Your task to perform on an android device: Open Amazon Image 0: 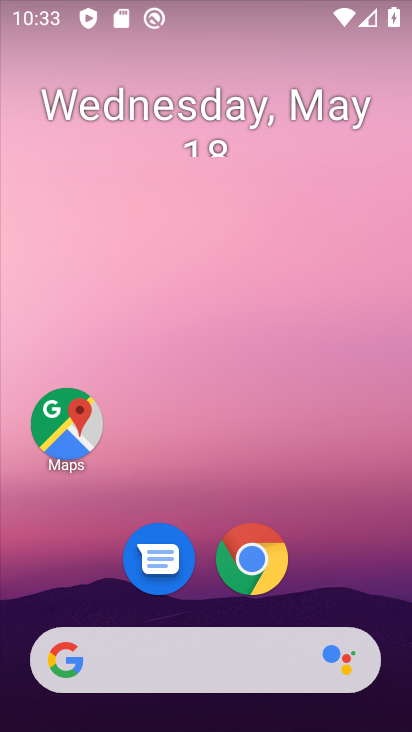
Step 0: click (235, 551)
Your task to perform on an android device: Open Amazon Image 1: 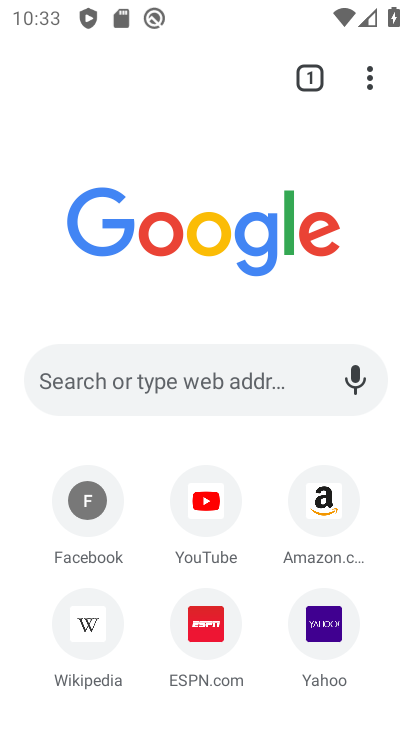
Step 1: click (322, 505)
Your task to perform on an android device: Open Amazon Image 2: 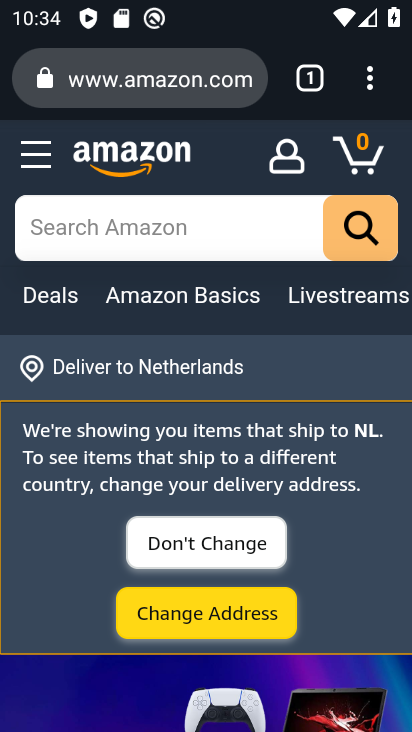
Step 2: task complete